Your task to perform on an android device: Go to display settings Image 0: 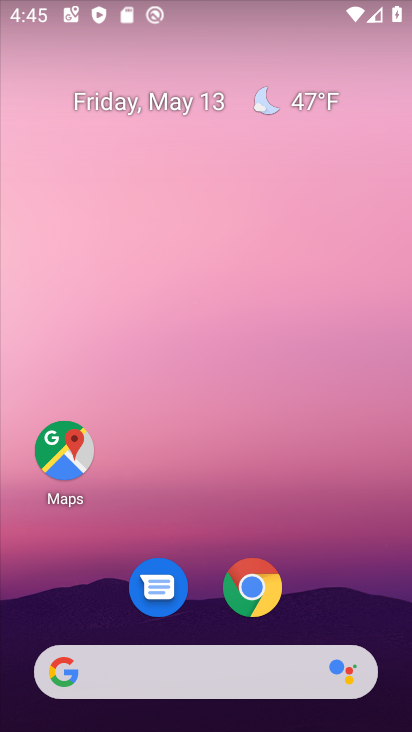
Step 0: drag from (308, 599) to (347, 158)
Your task to perform on an android device: Go to display settings Image 1: 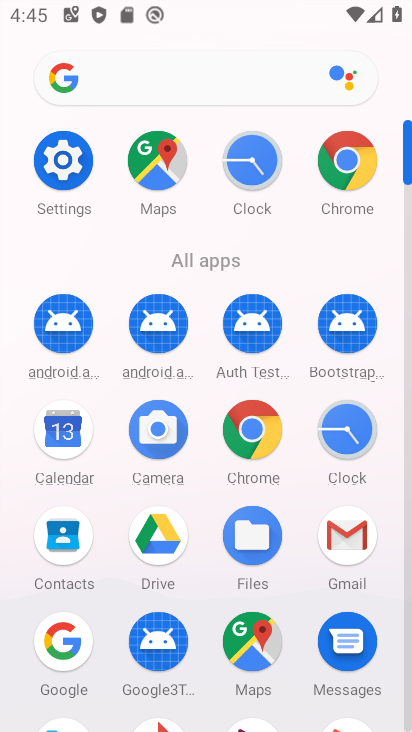
Step 1: click (71, 166)
Your task to perform on an android device: Go to display settings Image 2: 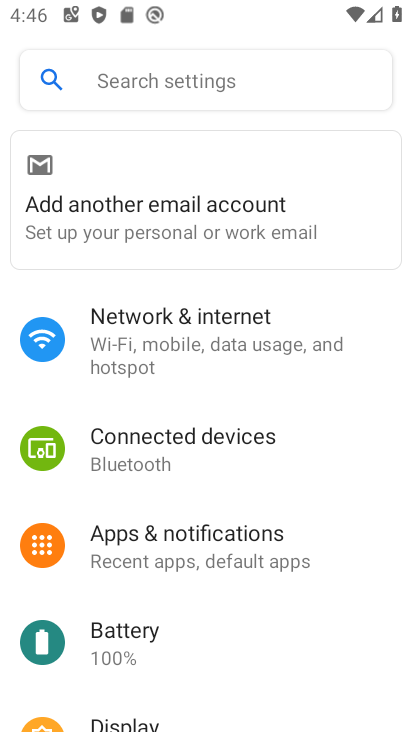
Step 2: drag from (284, 654) to (258, 265)
Your task to perform on an android device: Go to display settings Image 3: 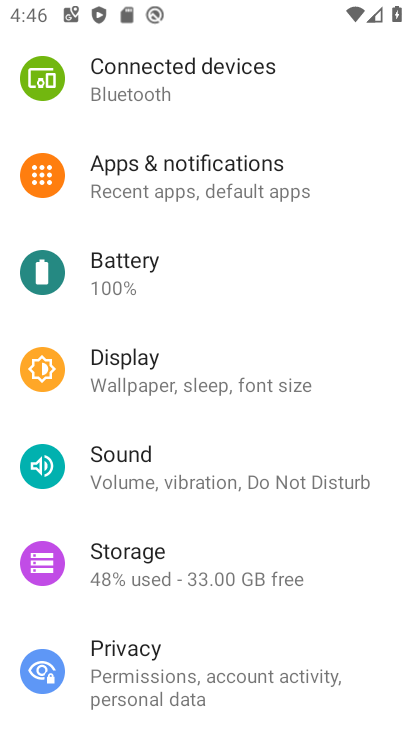
Step 3: click (124, 370)
Your task to perform on an android device: Go to display settings Image 4: 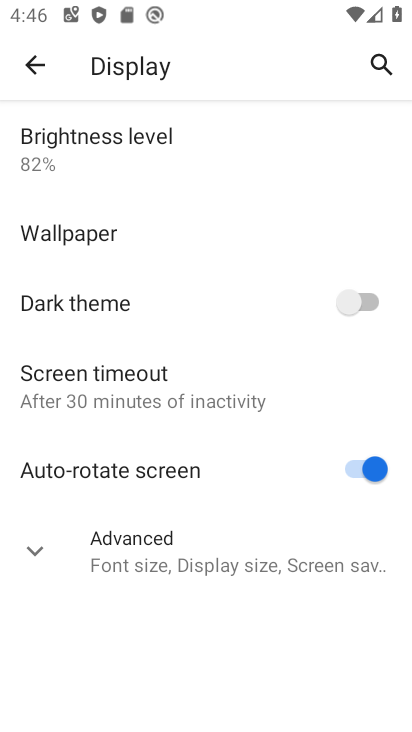
Step 4: task complete